Your task to perform on an android device: check out phone information Image 0: 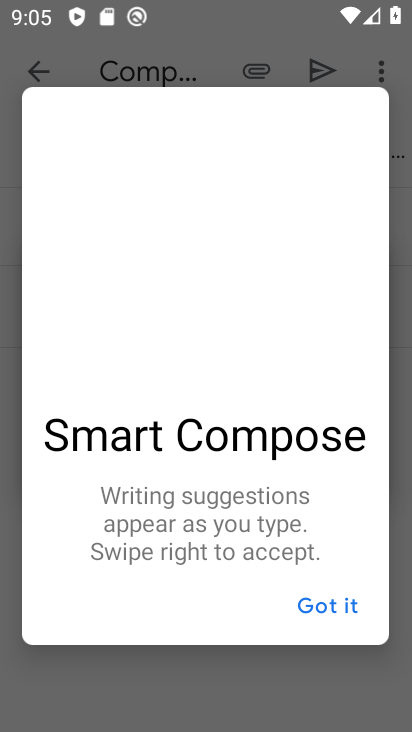
Step 0: press home button
Your task to perform on an android device: check out phone information Image 1: 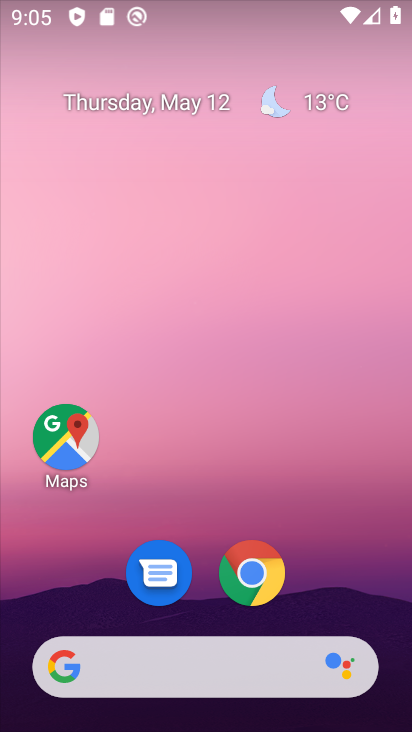
Step 1: drag from (402, 683) to (399, 219)
Your task to perform on an android device: check out phone information Image 2: 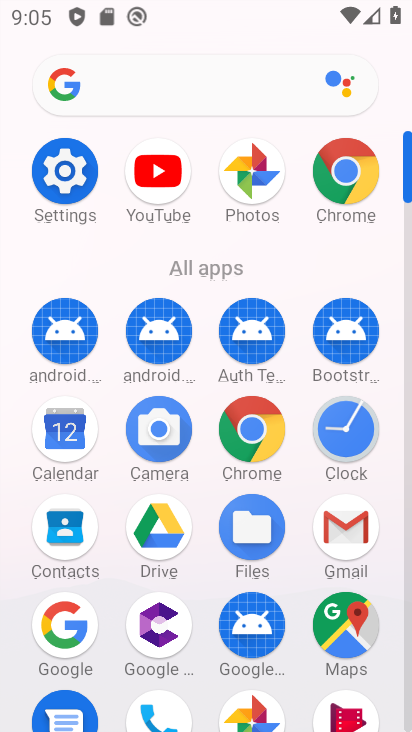
Step 2: click (52, 159)
Your task to perform on an android device: check out phone information Image 3: 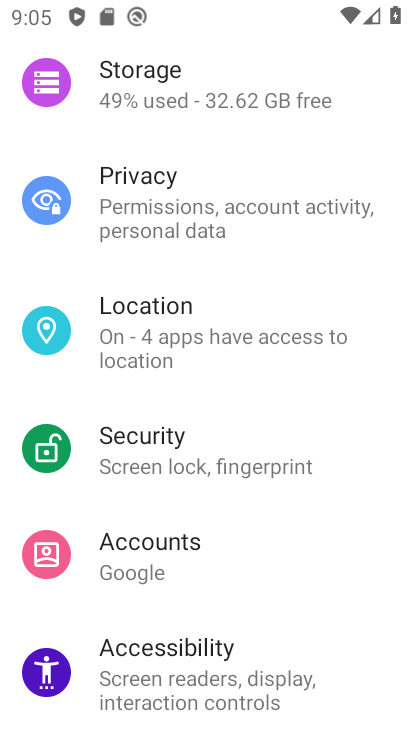
Step 3: drag from (375, 661) to (369, 358)
Your task to perform on an android device: check out phone information Image 4: 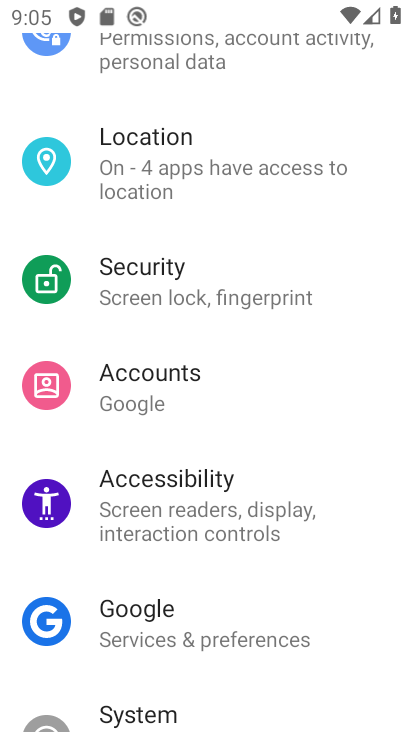
Step 4: drag from (355, 616) to (346, 359)
Your task to perform on an android device: check out phone information Image 5: 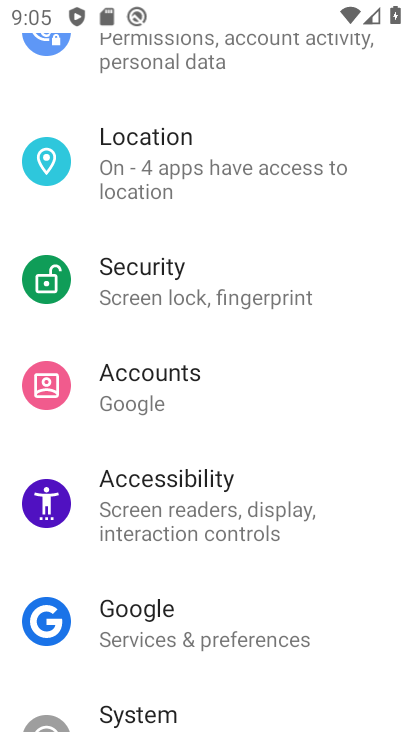
Step 5: click (388, 323)
Your task to perform on an android device: check out phone information Image 6: 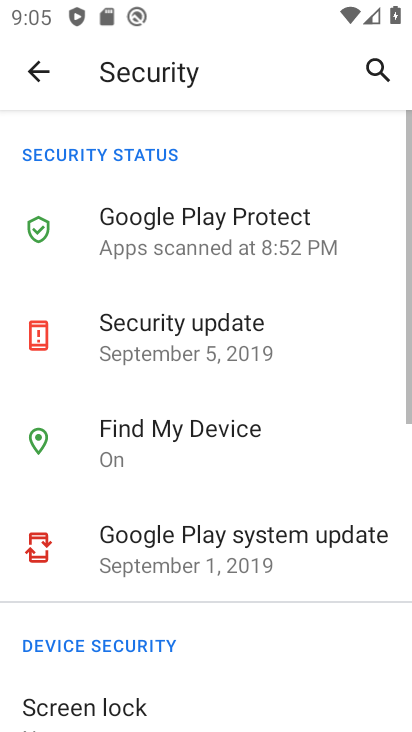
Step 6: click (28, 72)
Your task to perform on an android device: check out phone information Image 7: 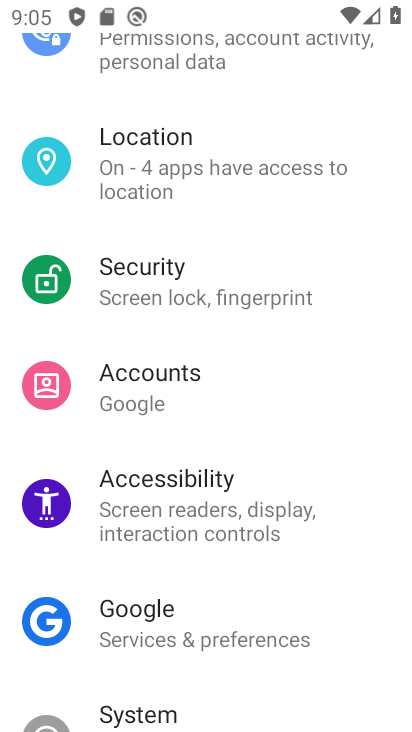
Step 7: drag from (396, 663) to (394, 292)
Your task to perform on an android device: check out phone information Image 8: 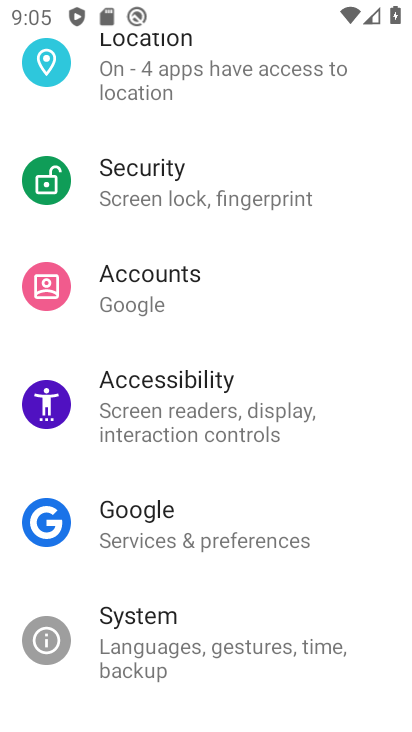
Step 8: click (154, 634)
Your task to perform on an android device: check out phone information Image 9: 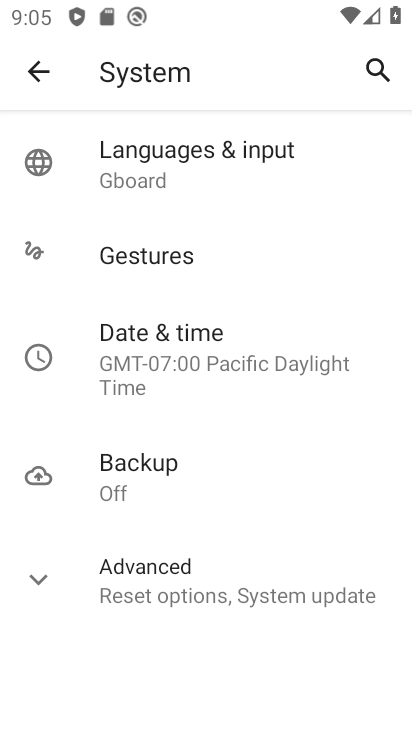
Step 9: click (35, 75)
Your task to perform on an android device: check out phone information Image 10: 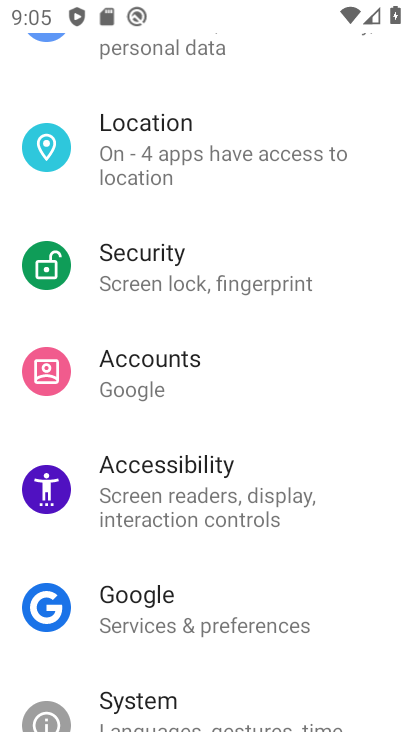
Step 10: drag from (375, 699) to (371, 411)
Your task to perform on an android device: check out phone information Image 11: 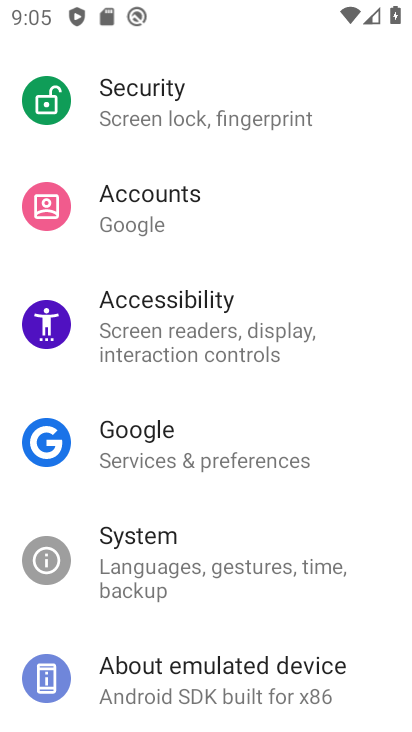
Step 11: drag from (387, 634) to (405, 351)
Your task to perform on an android device: check out phone information Image 12: 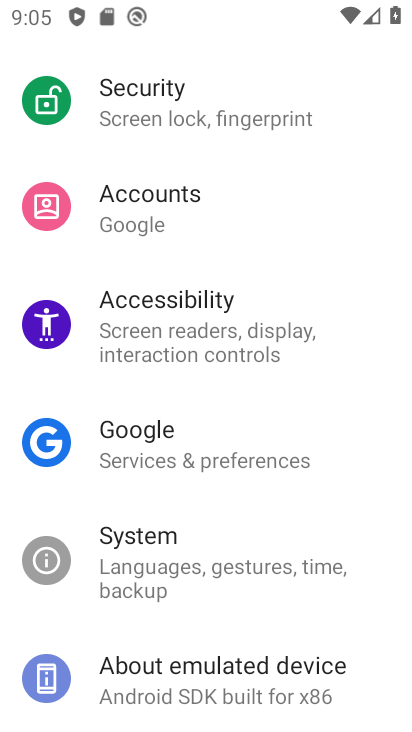
Step 12: click (244, 673)
Your task to perform on an android device: check out phone information Image 13: 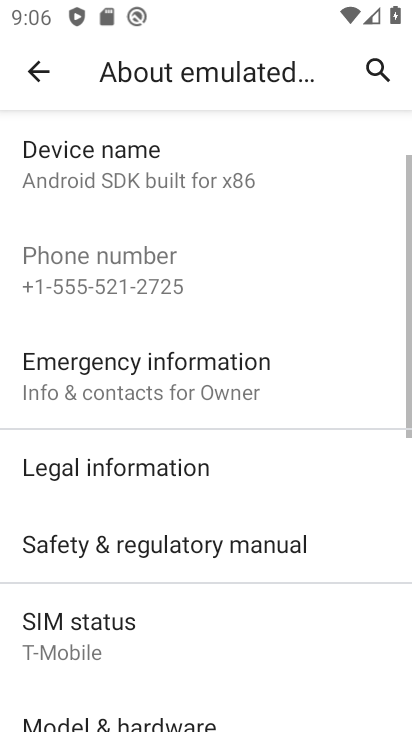
Step 13: task complete